Your task to perform on an android device: star an email in the gmail app Image 0: 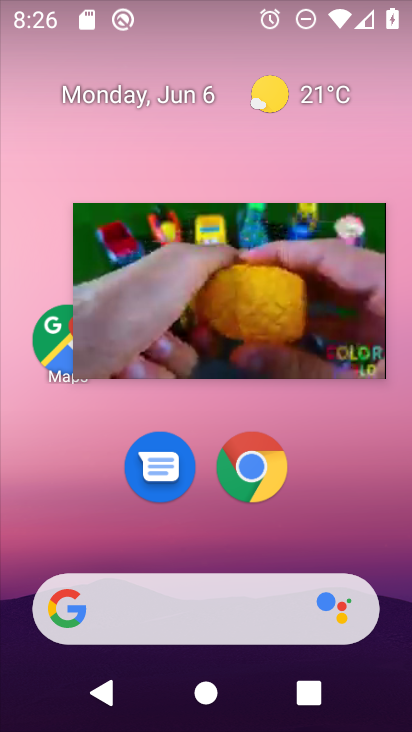
Step 0: drag from (388, 523) to (392, 138)
Your task to perform on an android device: star an email in the gmail app Image 1: 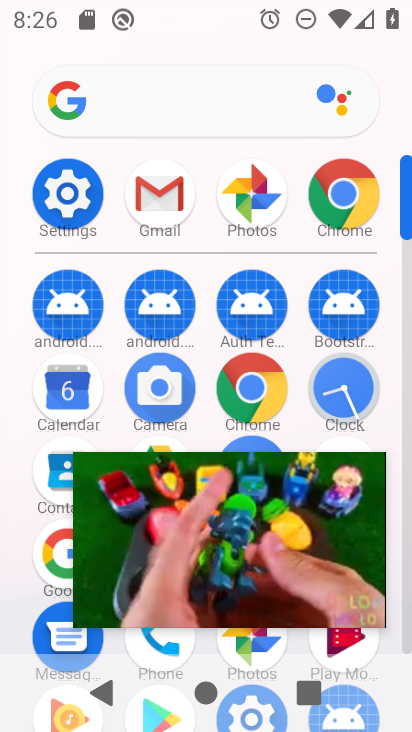
Step 1: click (166, 213)
Your task to perform on an android device: star an email in the gmail app Image 2: 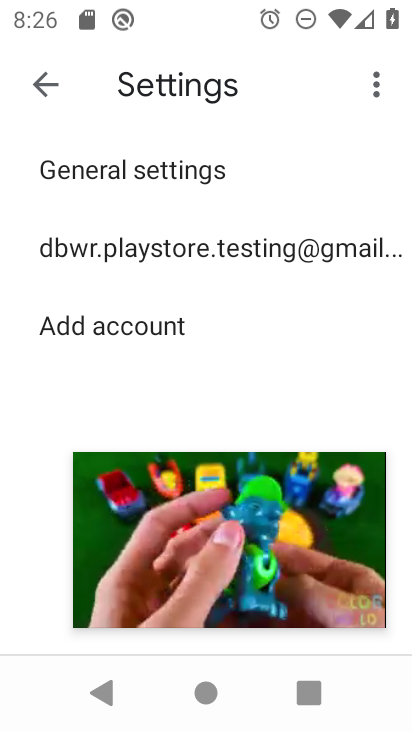
Step 2: task complete